Your task to perform on an android device: Open Amazon Image 0: 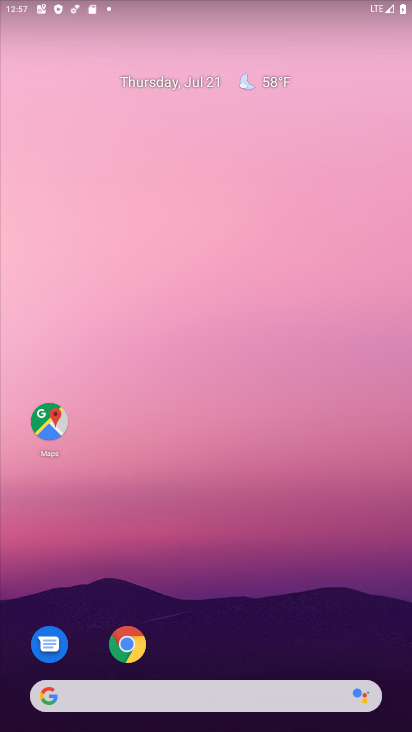
Step 0: drag from (368, 607) to (382, 64)
Your task to perform on an android device: Open Amazon Image 1: 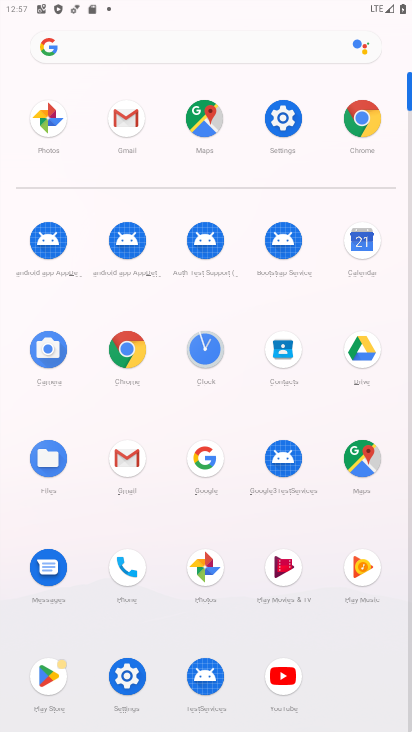
Step 1: click (114, 359)
Your task to perform on an android device: Open Amazon Image 2: 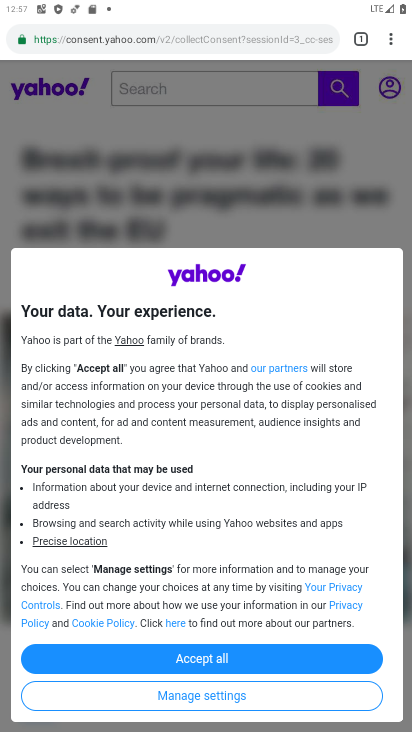
Step 2: click (201, 38)
Your task to perform on an android device: Open Amazon Image 3: 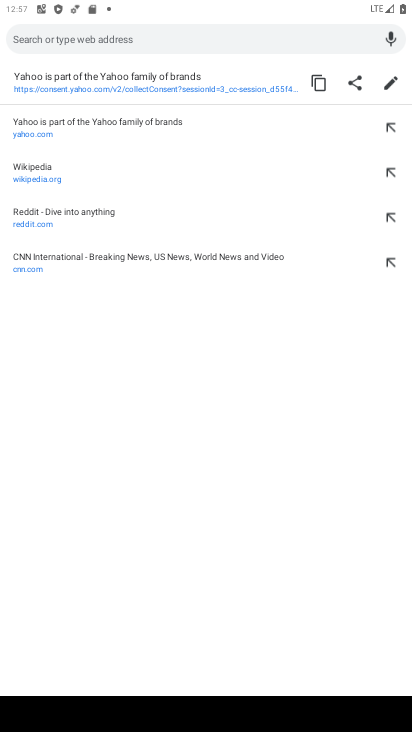
Step 3: type "amazon"
Your task to perform on an android device: Open Amazon Image 4: 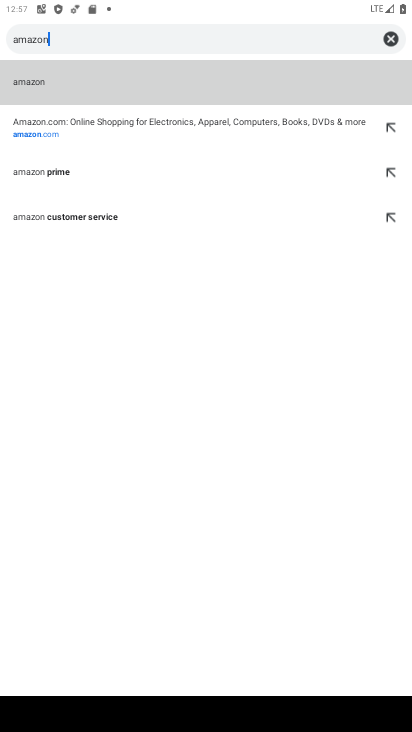
Step 4: click (264, 129)
Your task to perform on an android device: Open Amazon Image 5: 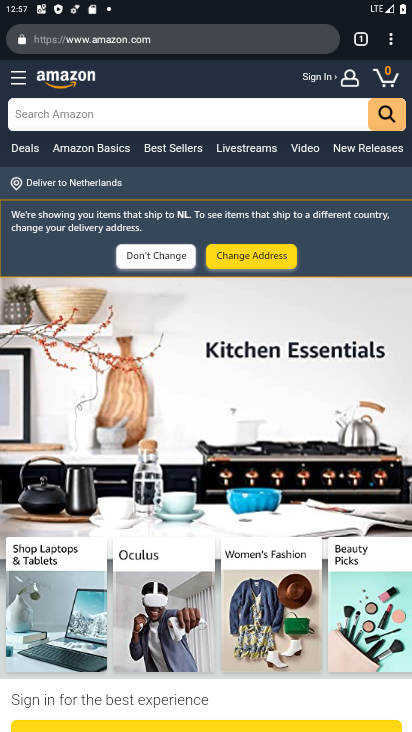
Step 5: task complete